Your task to perform on an android device: change your default location settings in chrome Image 0: 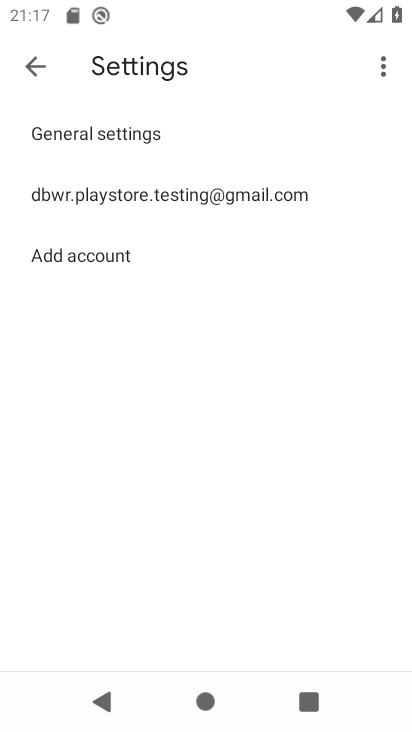
Step 0: press home button
Your task to perform on an android device: change your default location settings in chrome Image 1: 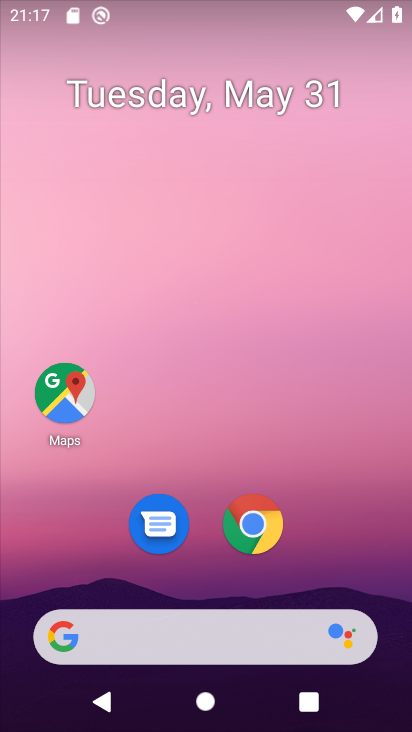
Step 1: click (263, 516)
Your task to perform on an android device: change your default location settings in chrome Image 2: 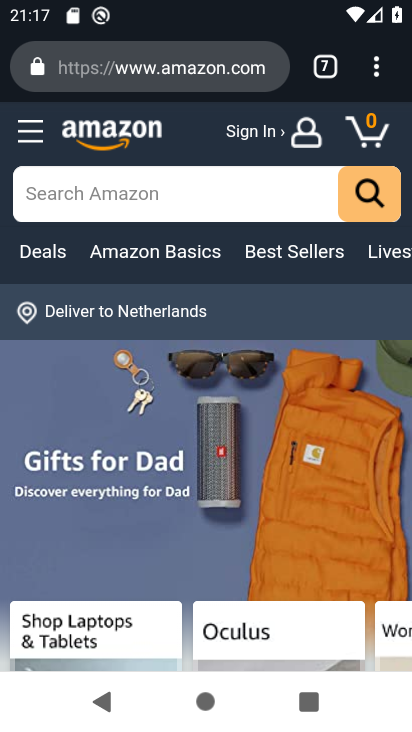
Step 2: click (374, 70)
Your task to perform on an android device: change your default location settings in chrome Image 3: 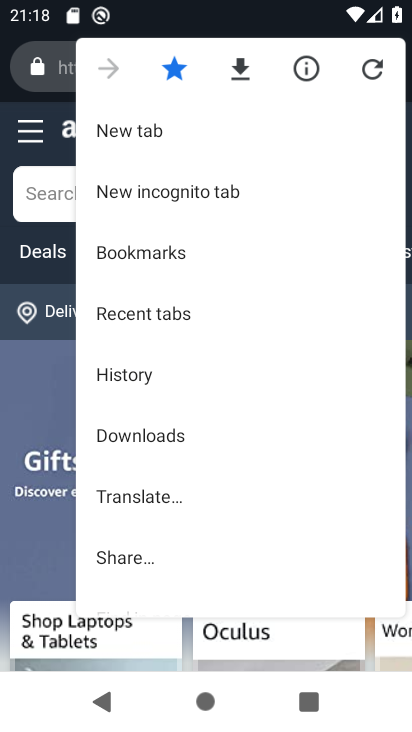
Step 3: drag from (283, 467) to (275, 146)
Your task to perform on an android device: change your default location settings in chrome Image 4: 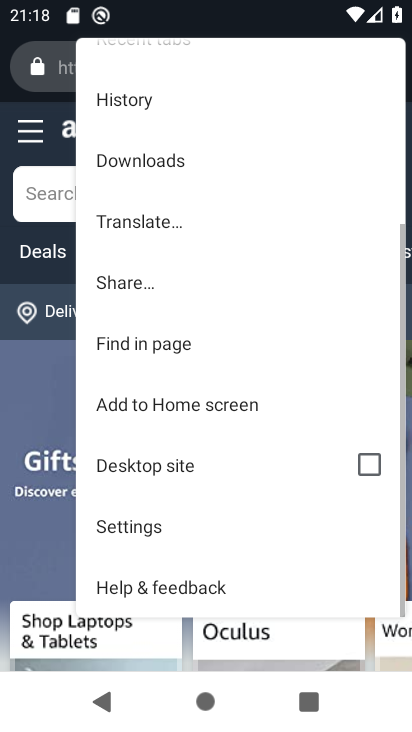
Step 4: click (155, 520)
Your task to perform on an android device: change your default location settings in chrome Image 5: 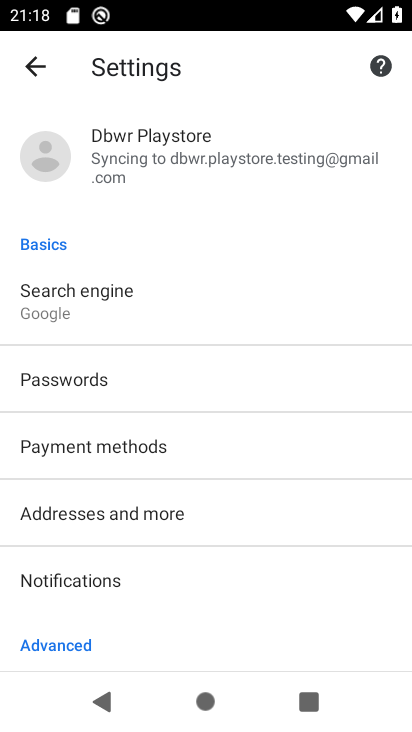
Step 5: drag from (219, 484) to (222, 254)
Your task to perform on an android device: change your default location settings in chrome Image 6: 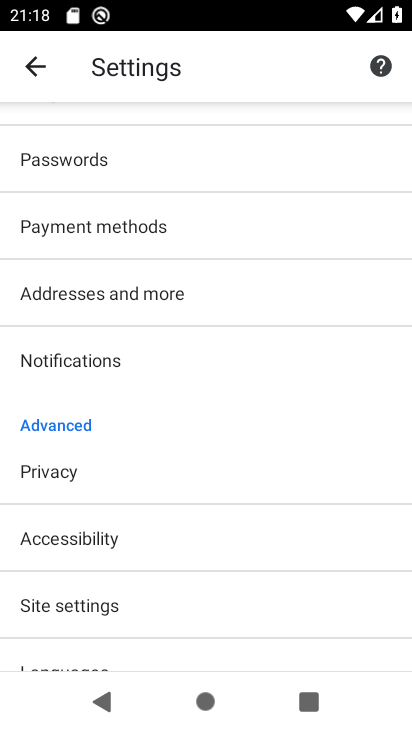
Step 6: click (177, 603)
Your task to perform on an android device: change your default location settings in chrome Image 7: 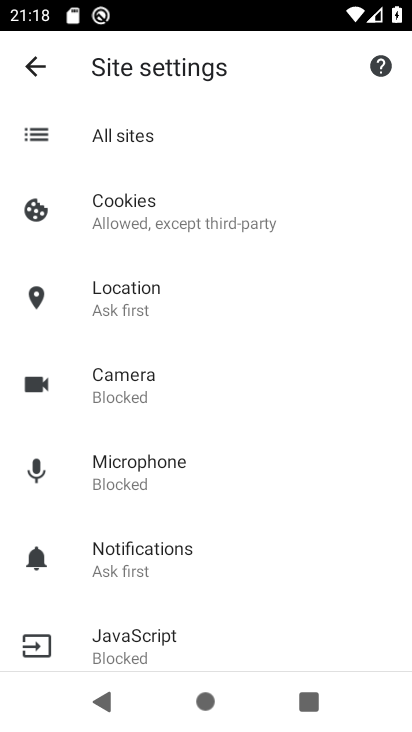
Step 7: click (180, 286)
Your task to perform on an android device: change your default location settings in chrome Image 8: 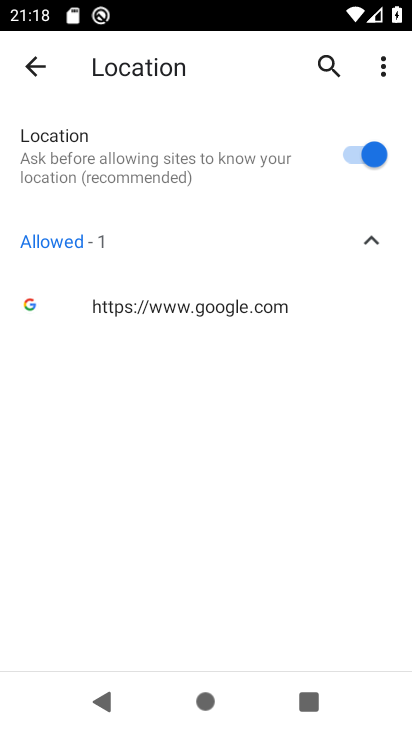
Step 8: click (355, 156)
Your task to perform on an android device: change your default location settings in chrome Image 9: 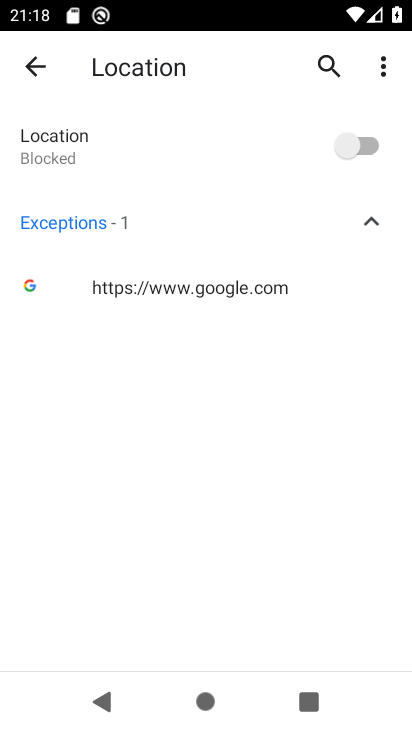
Step 9: task complete